Your task to perform on an android device: turn off wifi Image 0: 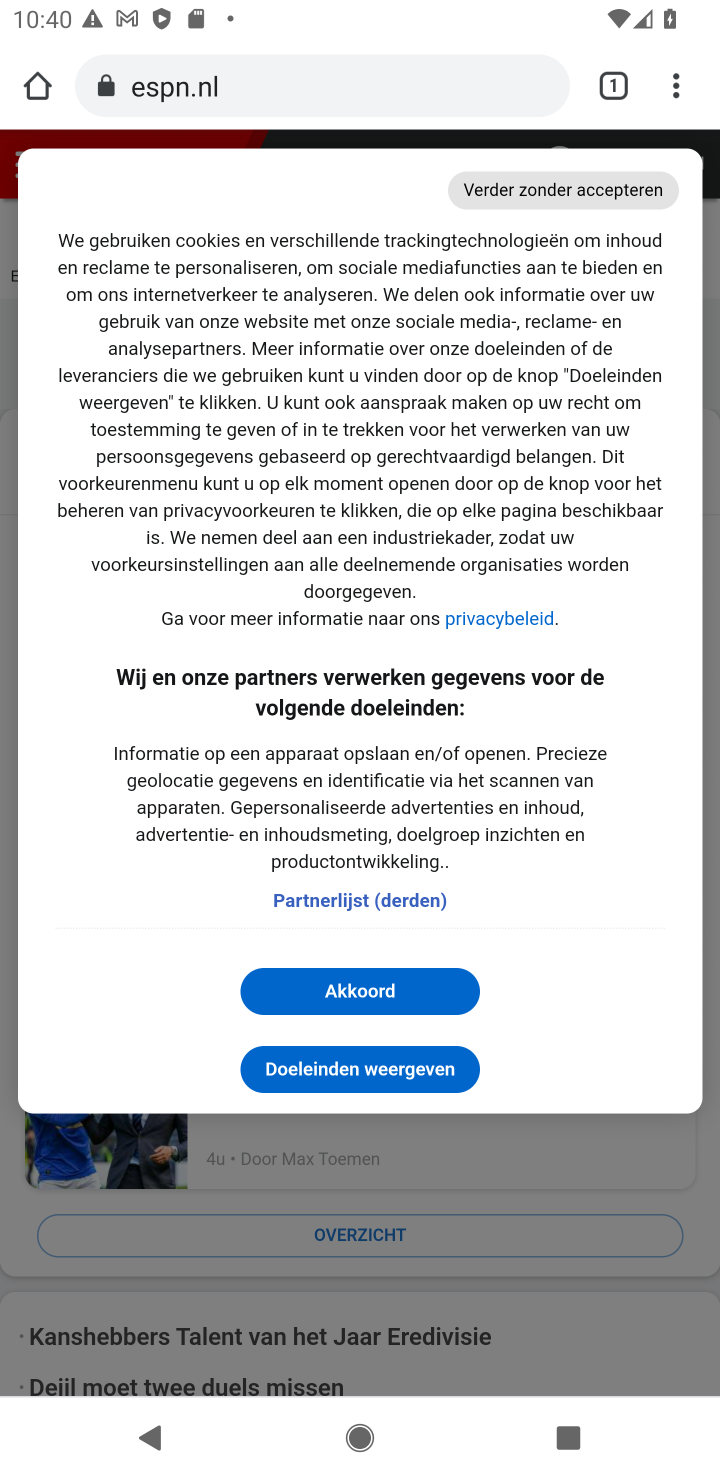
Step 0: press home button
Your task to perform on an android device: turn off wifi Image 1: 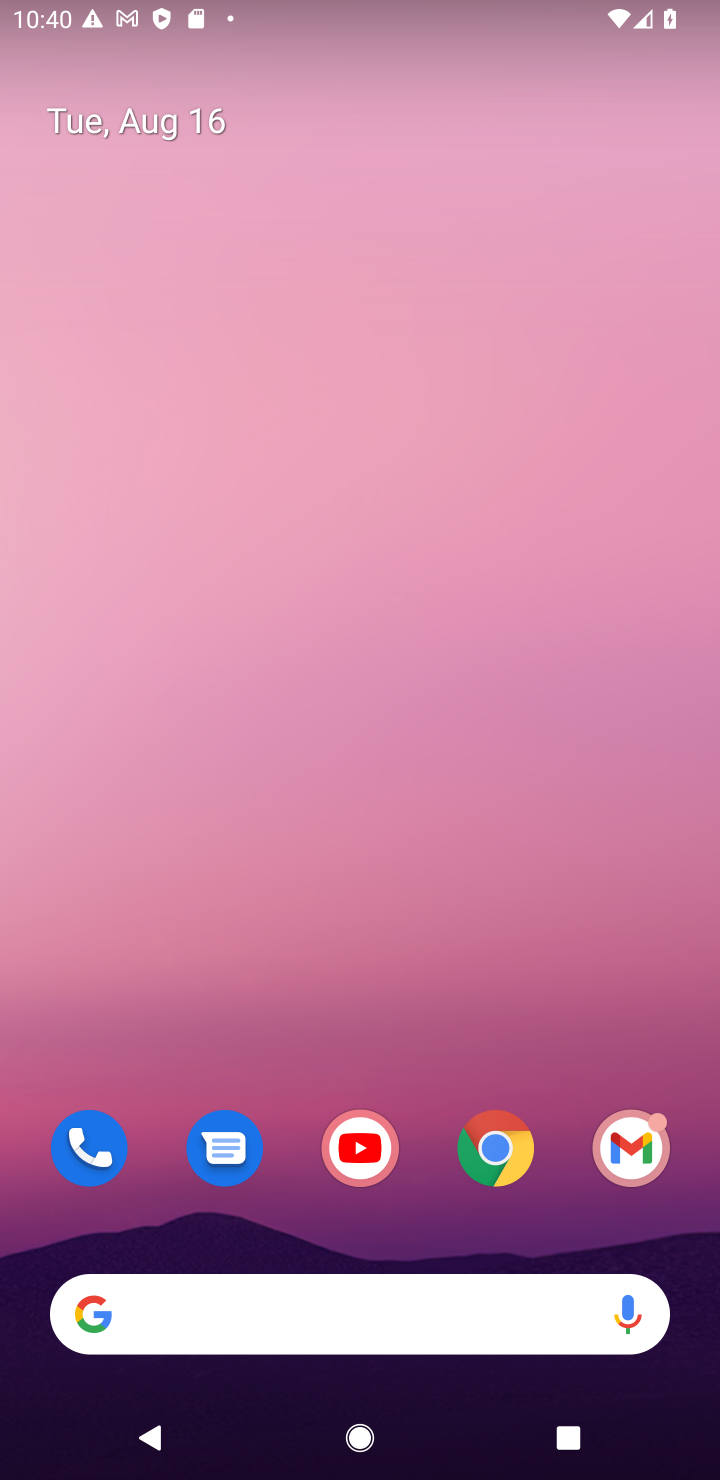
Step 1: drag from (481, 2) to (442, 1439)
Your task to perform on an android device: turn off wifi Image 2: 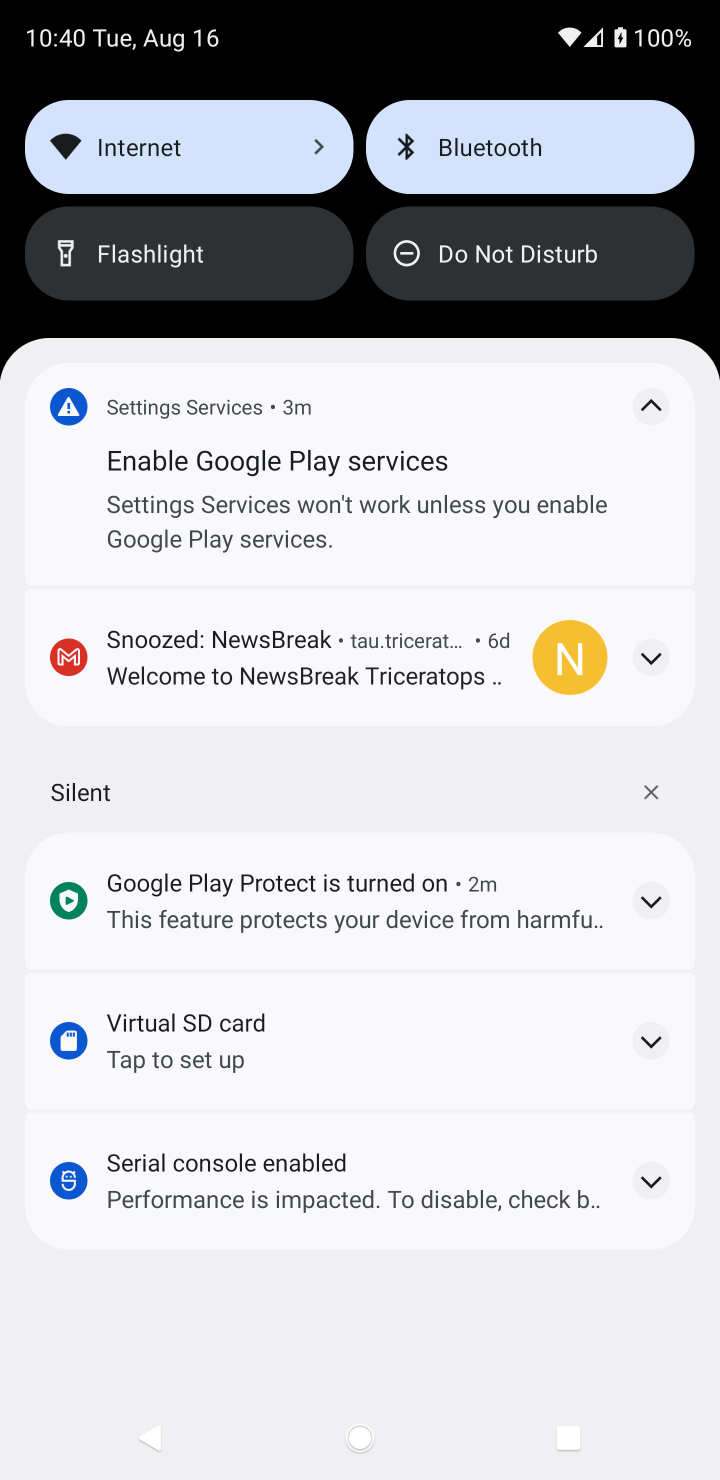
Step 2: click (206, 147)
Your task to perform on an android device: turn off wifi Image 3: 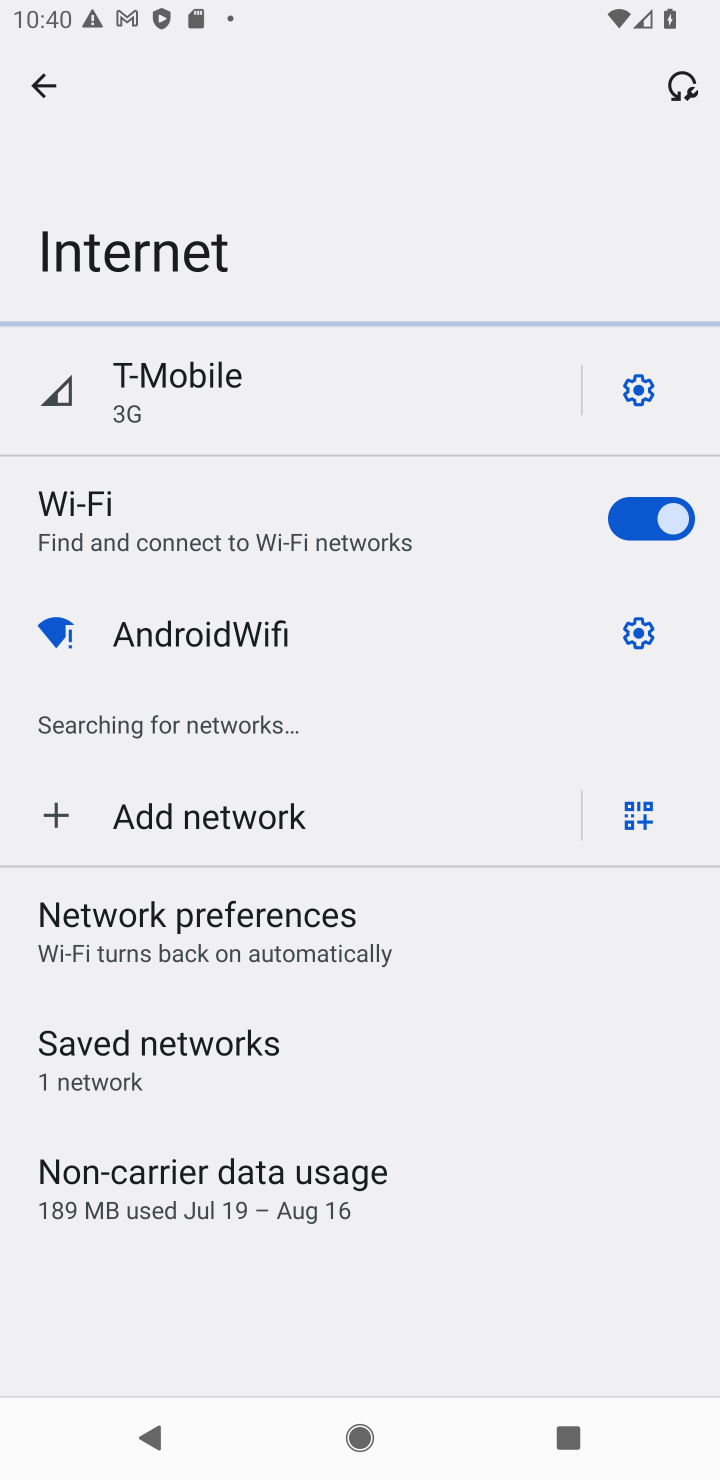
Step 3: task complete